Your task to perform on an android device: turn off location Image 0: 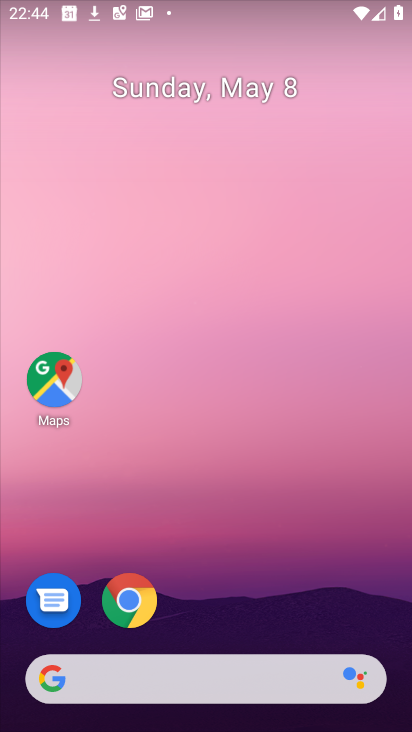
Step 0: drag from (306, 697) to (261, 211)
Your task to perform on an android device: turn off location Image 1: 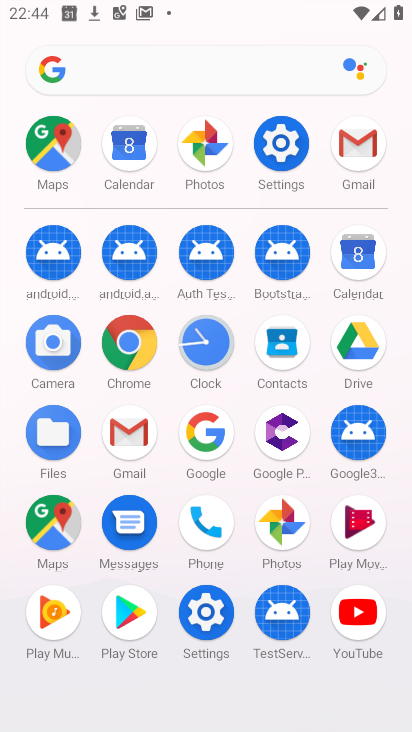
Step 1: click (279, 166)
Your task to perform on an android device: turn off location Image 2: 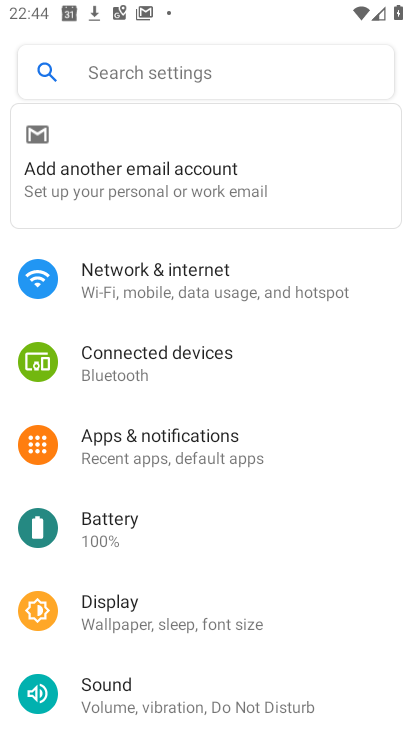
Step 2: click (208, 82)
Your task to perform on an android device: turn off location Image 3: 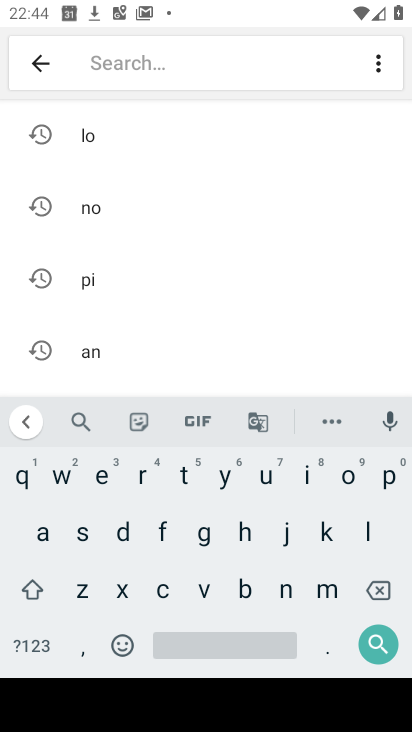
Step 3: click (138, 145)
Your task to perform on an android device: turn off location Image 4: 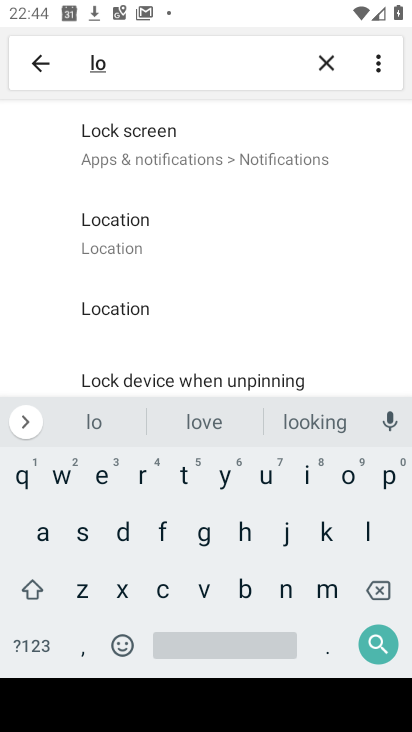
Step 4: click (114, 236)
Your task to perform on an android device: turn off location Image 5: 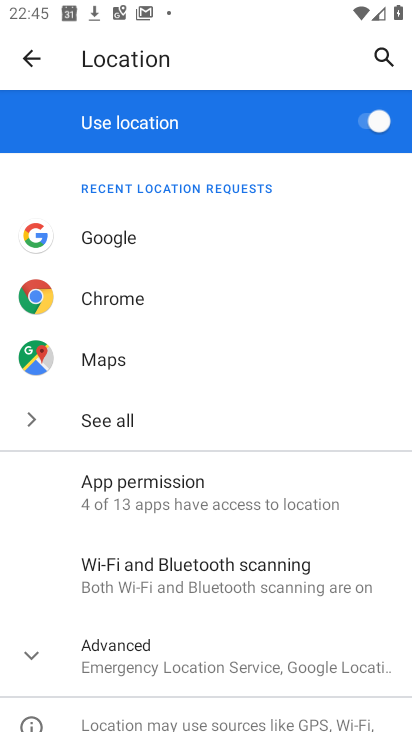
Step 5: click (374, 122)
Your task to perform on an android device: turn off location Image 6: 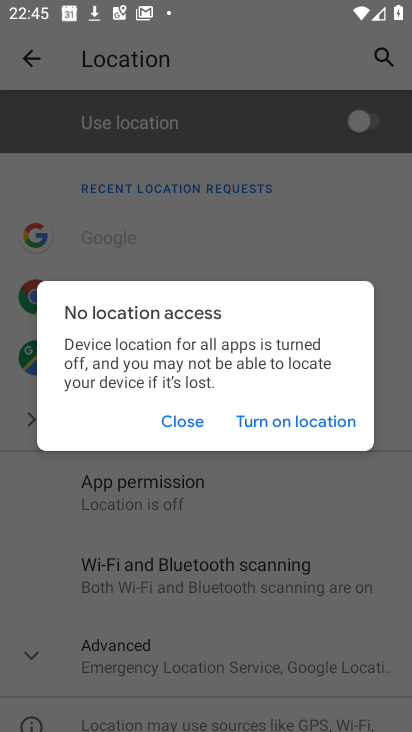
Step 6: task complete